Your task to perform on an android device: turn off smart reply in the gmail app Image 0: 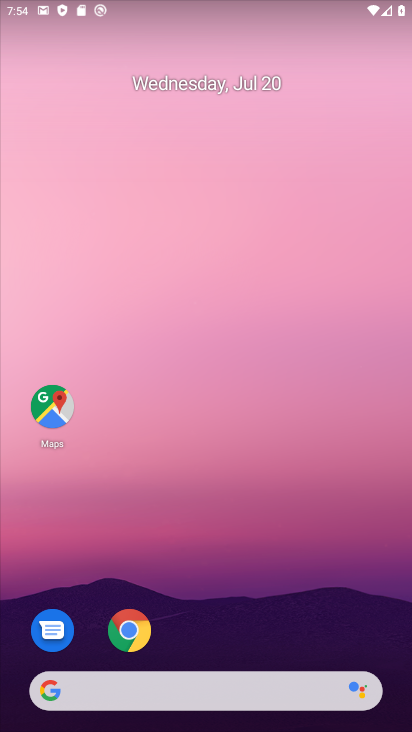
Step 0: drag from (218, 648) to (196, 217)
Your task to perform on an android device: turn off smart reply in the gmail app Image 1: 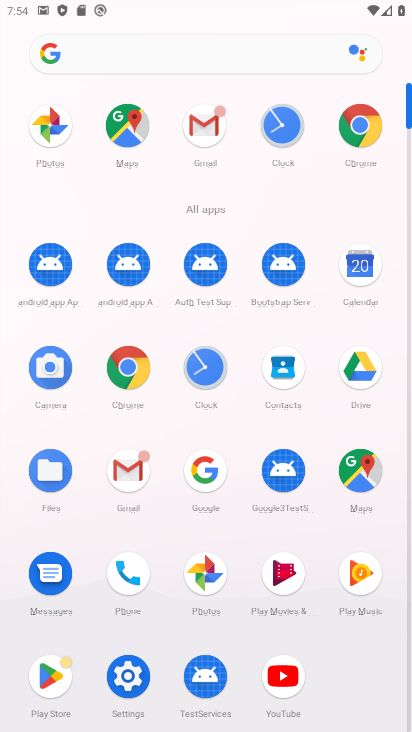
Step 1: click (204, 122)
Your task to perform on an android device: turn off smart reply in the gmail app Image 2: 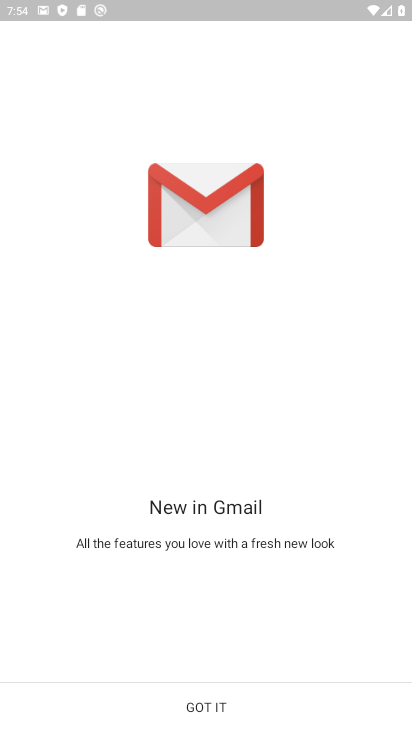
Step 2: click (222, 718)
Your task to perform on an android device: turn off smart reply in the gmail app Image 3: 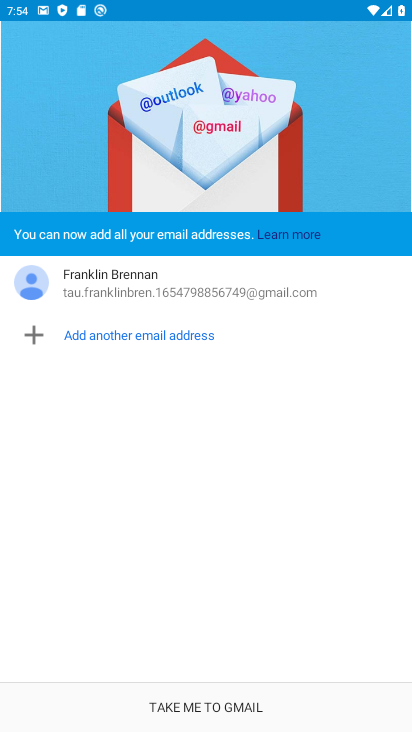
Step 3: click (185, 704)
Your task to perform on an android device: turn off smart reply in the gmail app Image 4: 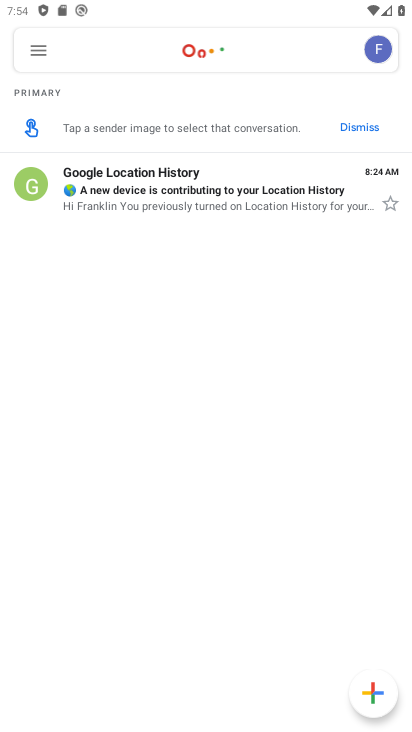
Step 4: click (43, 52)
Your task to perform on an android device: turn off smart reply in the gmail app Image 5: 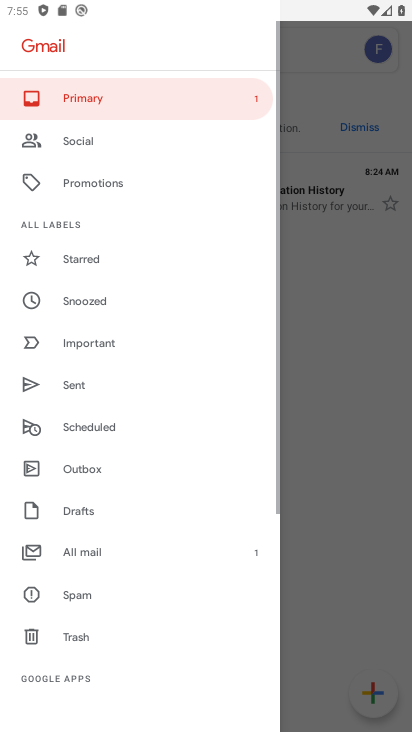
Step 5: drag from (96, 655) to (102, 260)
Your task to perform on an android device: turn off smart reply in the gmail app Image 6: 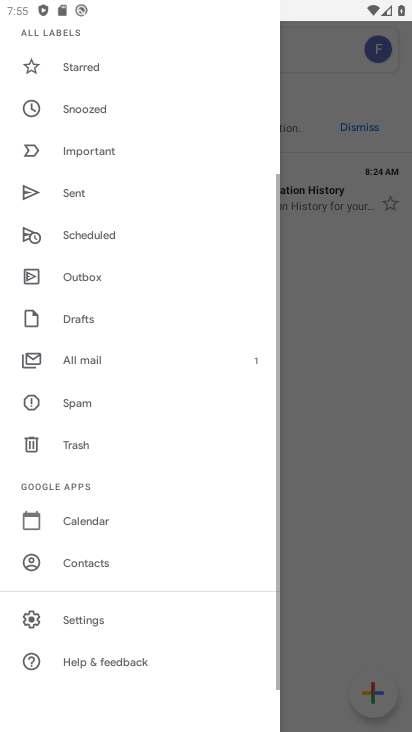
Step 6: click (109, 630)
Your task to perform on an android device: turn off smart reply in the gmail app Image 7: 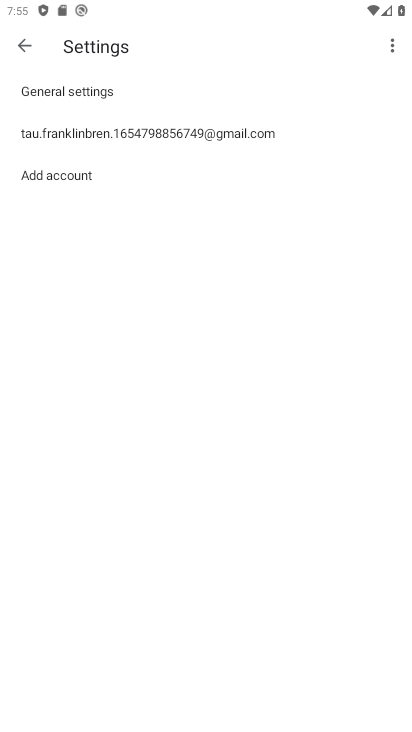
Step 7: click (90, 141)
Your task to perform on an android device: turn off smart reply in the gmail app Image 8: 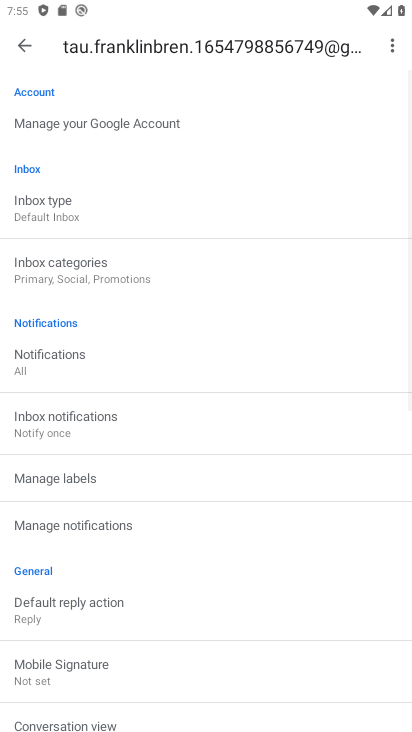
Step 8: drag from (66, 569) to (57, 151)
Your task to perform on an android device: turn off smart reply in the gmail app Image 9: 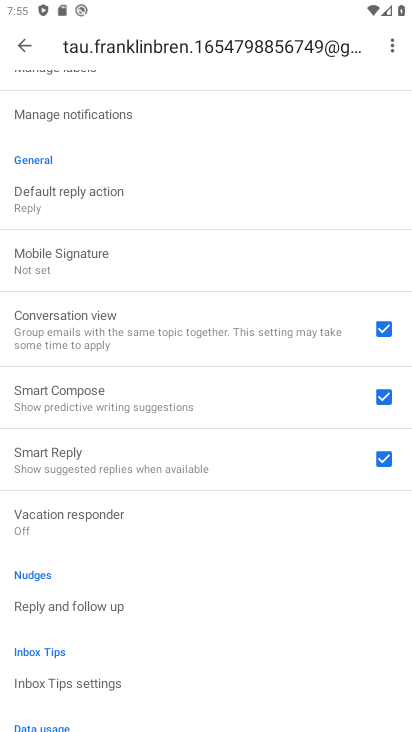
Step 9: click (381, 457)
Your task to perform on an android device: turn off smart reply in the gmail app Image 10: 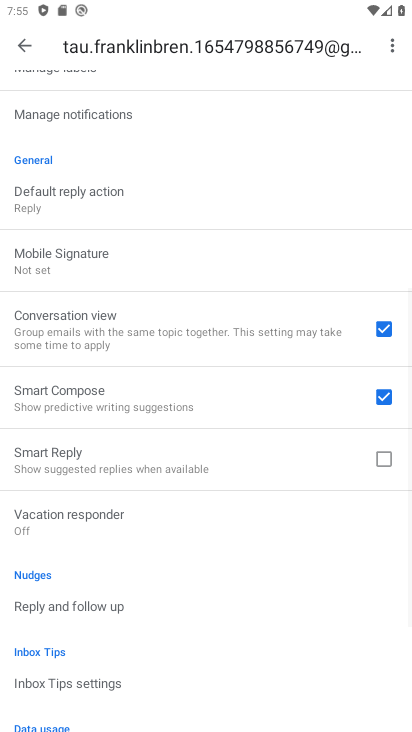
Step 10: task complete